Your task to perform on an android device: change notification settings in the gmail app Image 0: 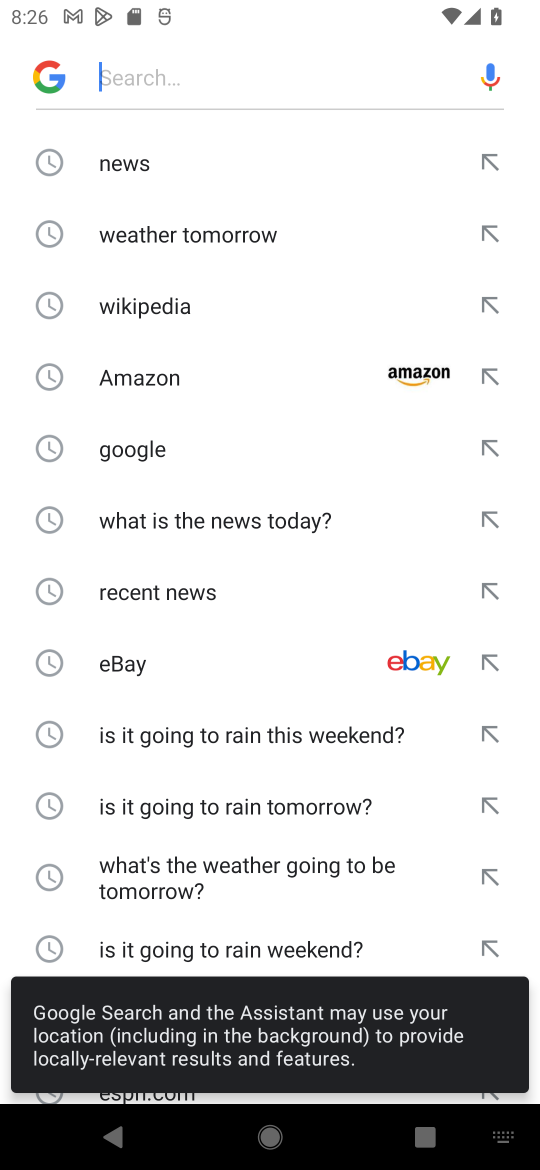
Step 0: press home button
Your task to perform on an android device: change notification settings in the gmail app Image 1: 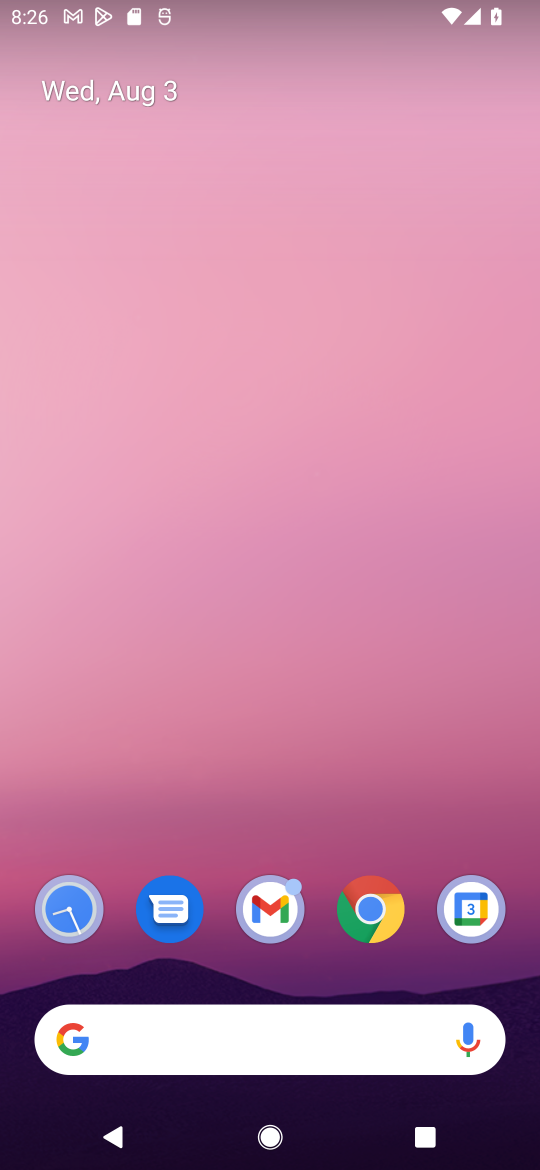
Step 1: drag from (418, 817) to (419, 278)
Your task to perform on an android device: change notification settings in the gmail app Image 2: 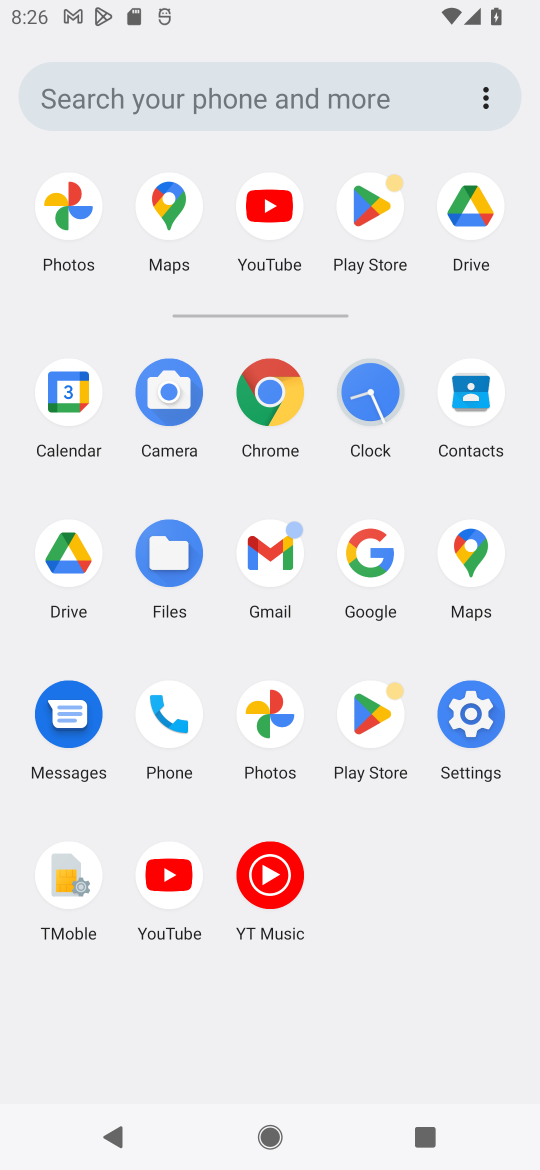
Step 2: click (272, 556)
Your task to perform on an android device: change notification settings in the gmail app Image 3: 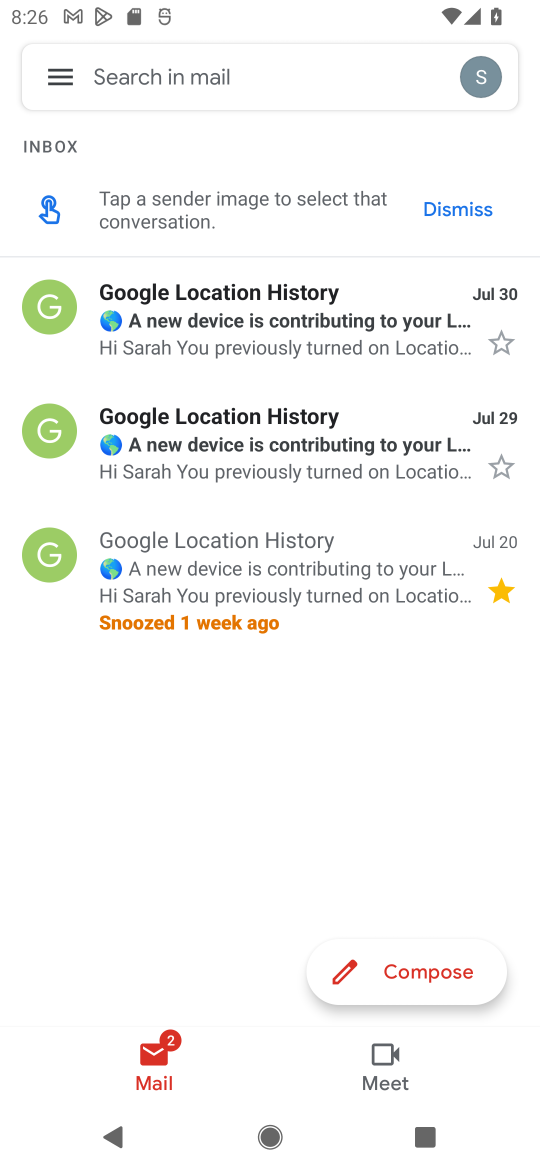
Step 3: click (64, 66)
Your task to perform on an android device: change notification settings in the gmail app Image 4: 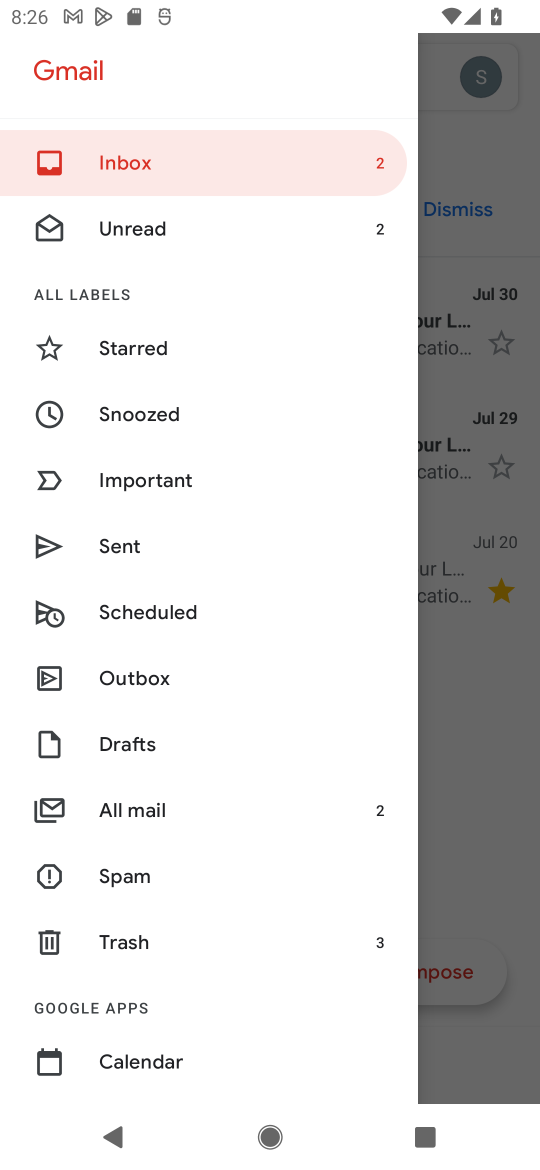
Step 4: drag from (258, 818) to (268, 632)
Your task to perform on an android device: change notification settings in the gmail app Image 5: 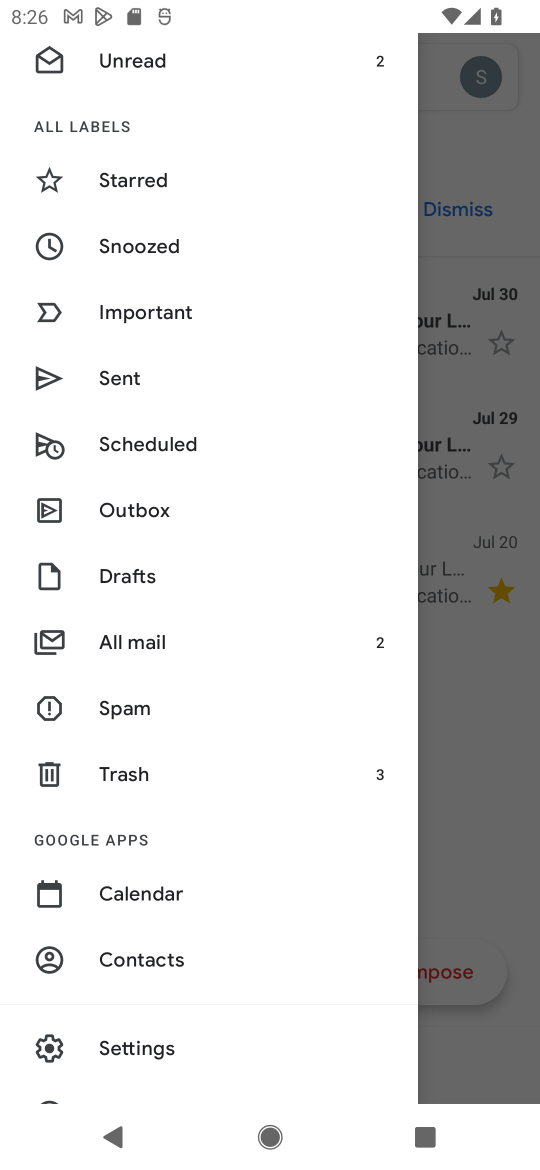
Step 5: drag from (284, 935) to (288, 710)
Your task to perform on an android device: change notification settings in the gmail app Image 6: 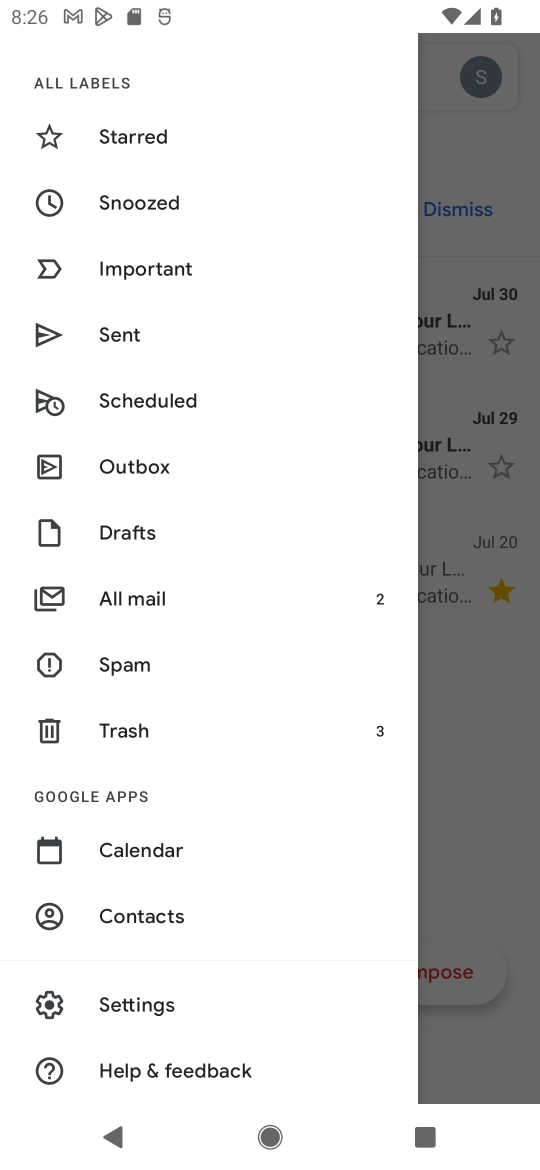
Step 6: click (179, 1005)
Your task to perform on an android device: change notification settings in the gmail app Image 7: 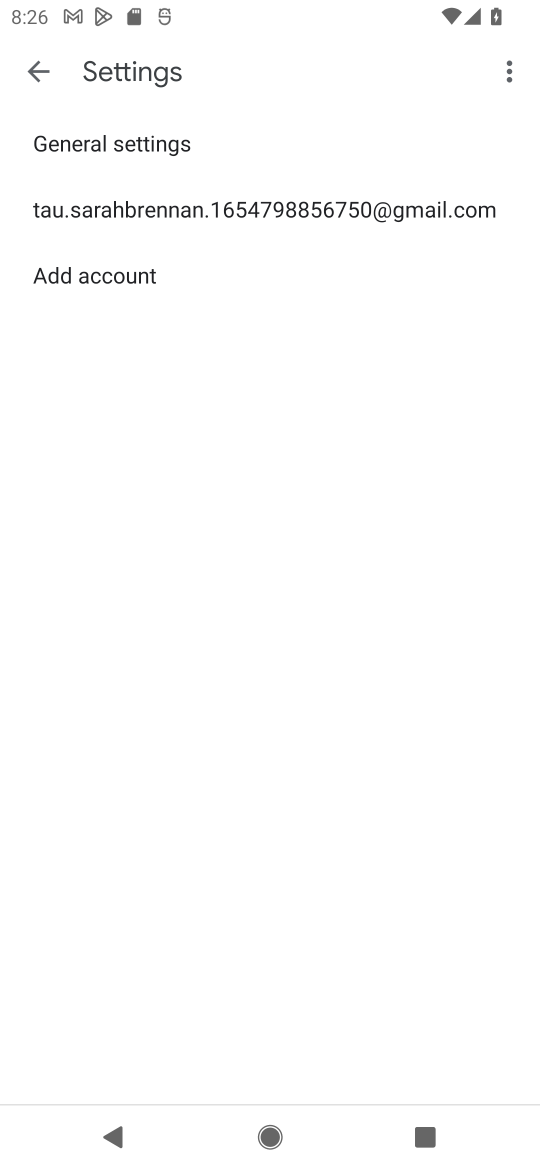
Step 7: click (272, 209)
Your task to perform on an android device: change notification settings in the gmail app Image 8: 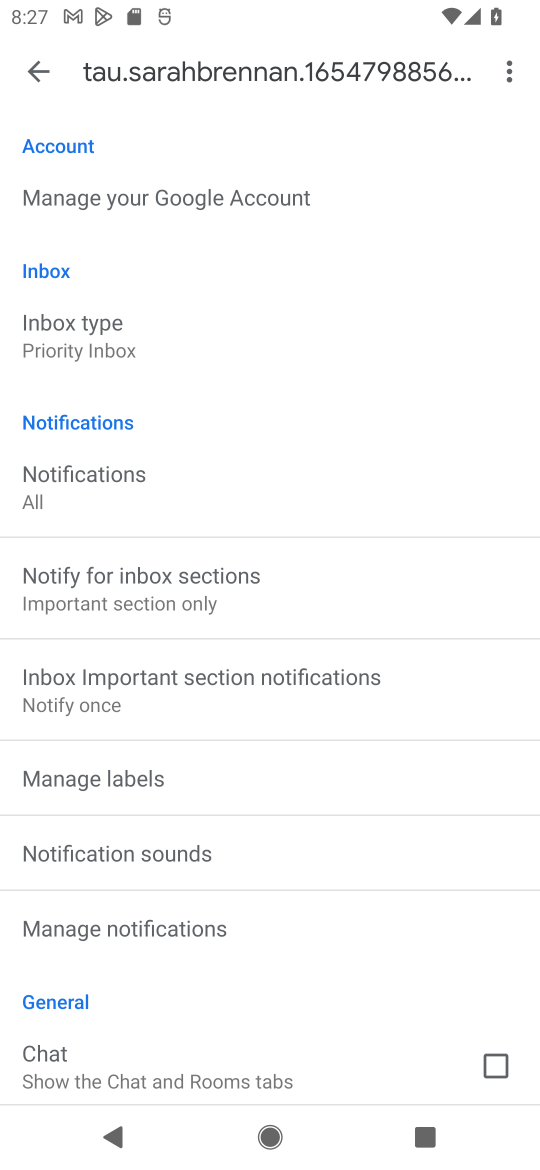
Step 8: drag from (396, 738) to (425, 586)
Your task to perform on an android device: change notification settings in the gmail app Image 9: 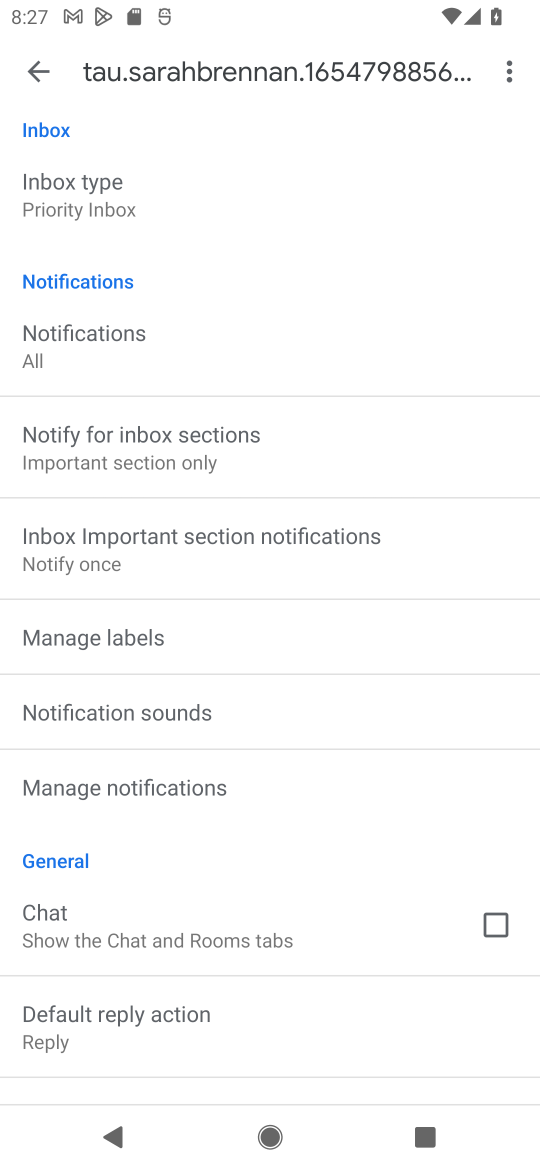
Step 9: drag from (384, 801) to (404, 654)
Your task to perform on an android device: change notification settings in the gmail app Image 10: 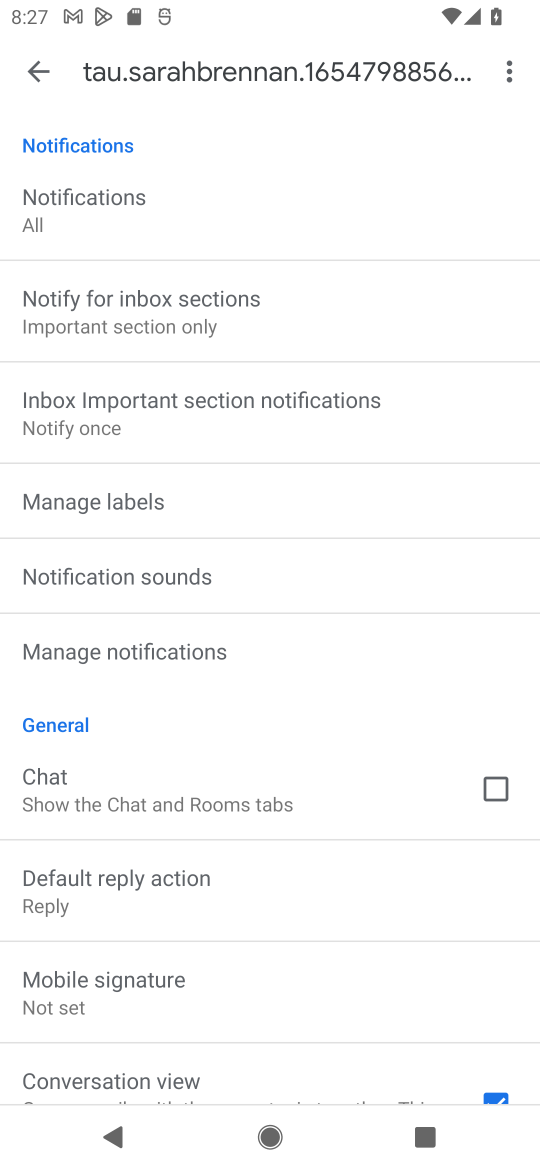
Step 10: click (200, 240)
Your task to perform on an android device: change notification settings in the gmail app Image 11: 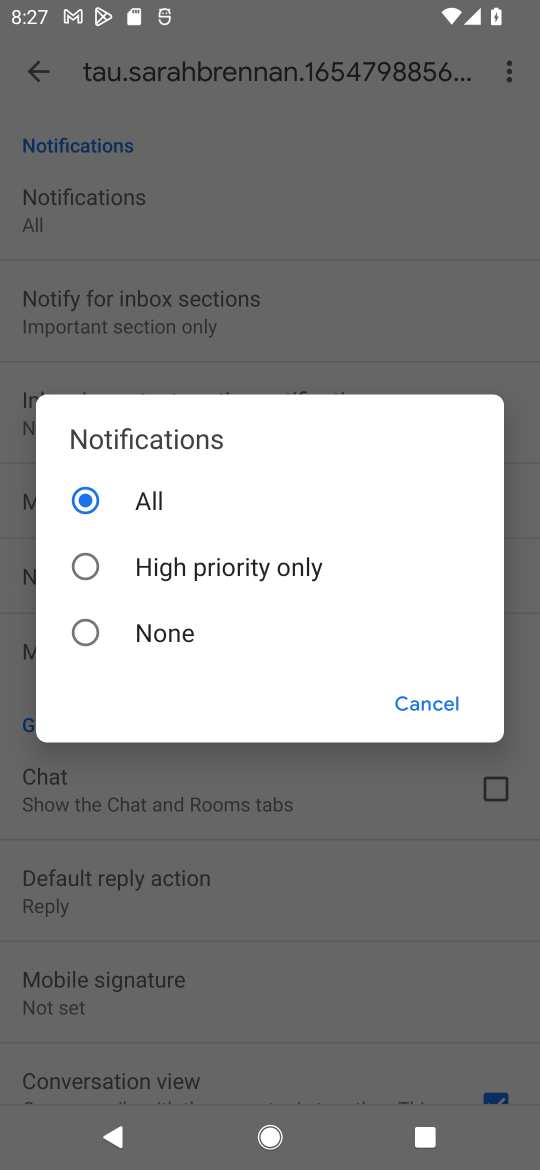
Step 11: click (257, 555)
Your task to perform on an android device: change notification settings in the gmail app Image 12: 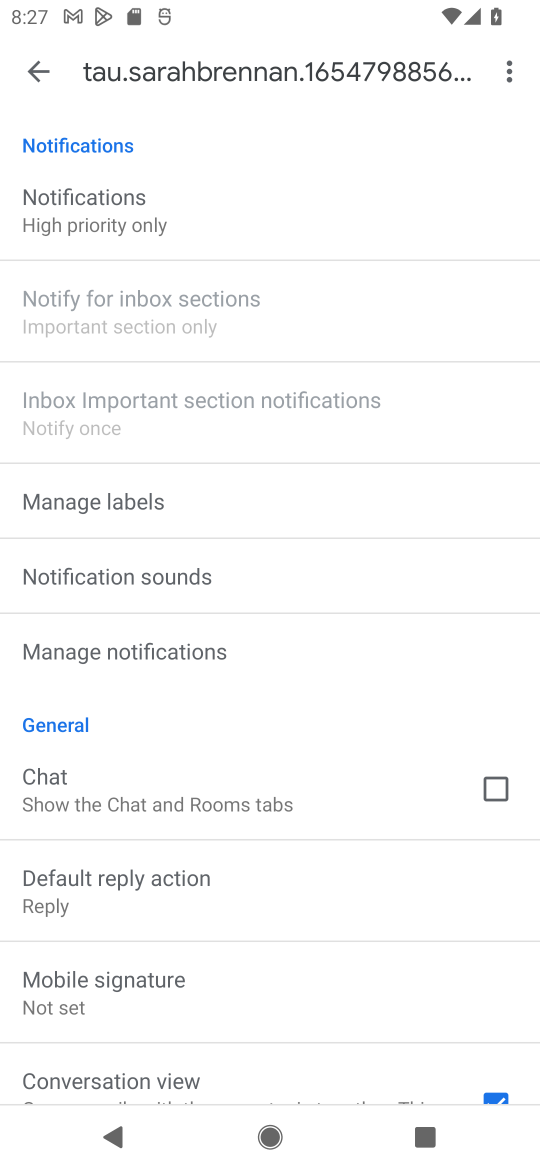
Step 12: task complete